Your task to perform on an android device: all mails in gmail Image 0: 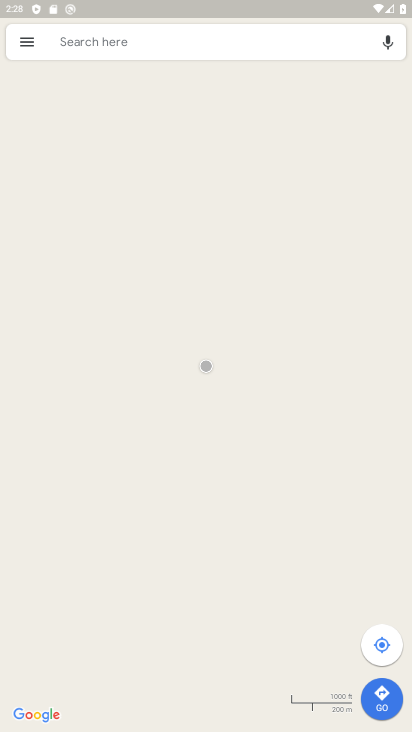
Step 0: press home button
Your task to perform on an android device: all mails in gmail Image 1: 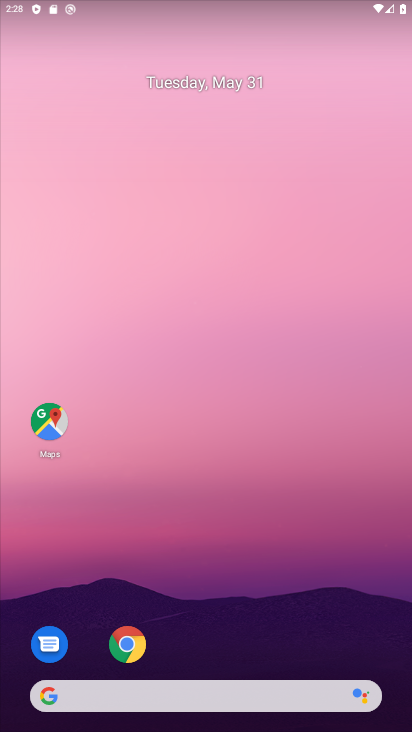
Step 1: drag from (314, 637) to (269, 41)
Your task to perform on an android device: all mails in gmail Image 2: 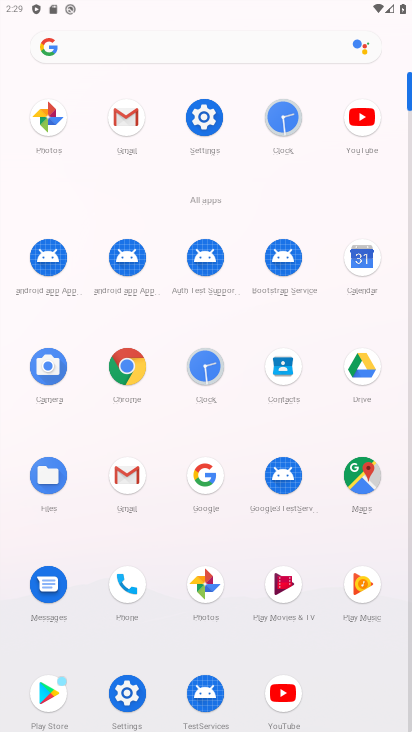
Step 2: click (116, 128)
Your task to perform on an android device: all mails in gmail Image 3: 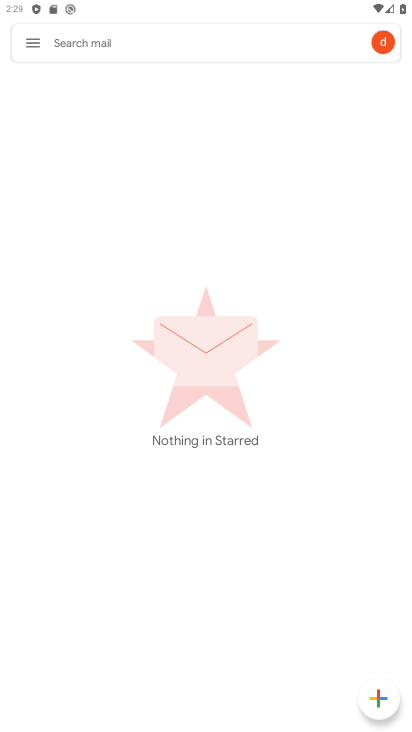
Step 3: click (31, 44)
Your task to perform on an android device: all mails in gmail Image 4: 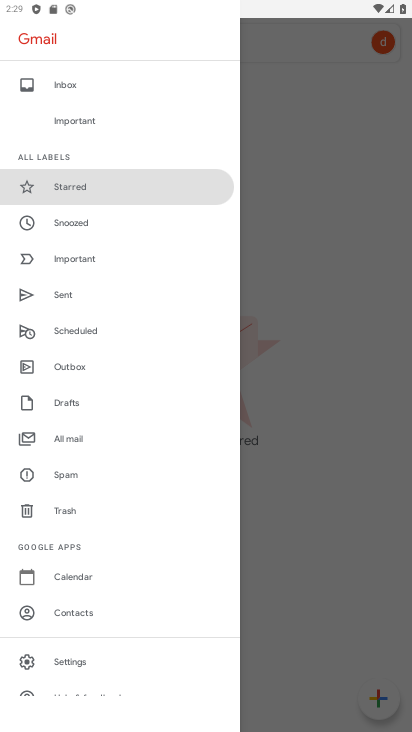
Step 4: drag from (181, 675) to (173, 448)
Your task to perform on an android device: all mails in gmail Image 5: 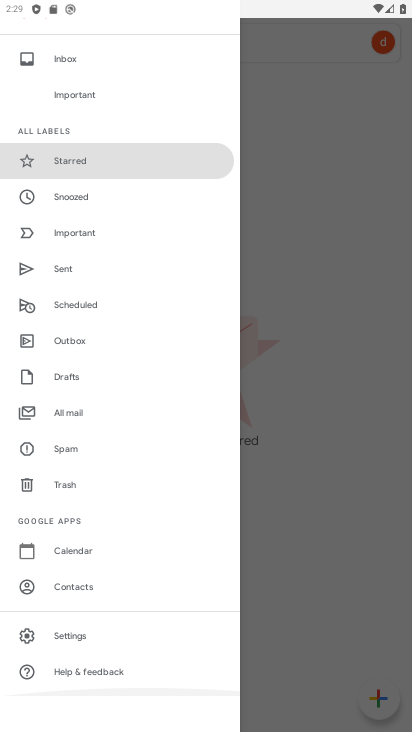
Step 5: click (66, 412)
Your task to perform on an android device: all mails in gmail Image 6: 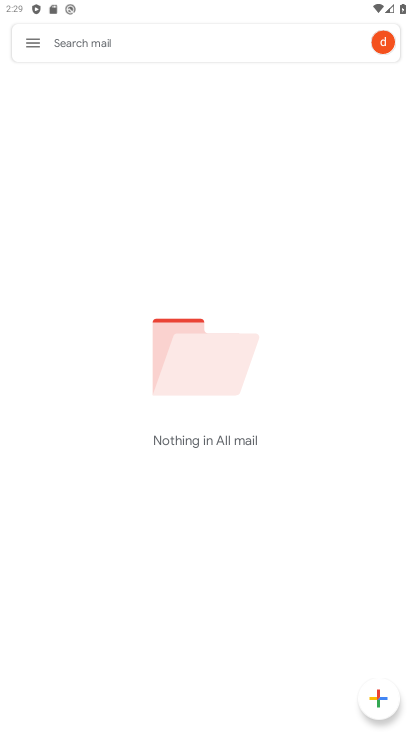
Step 6: task complete